Your task to perform on an android device: check battery use Image 0: 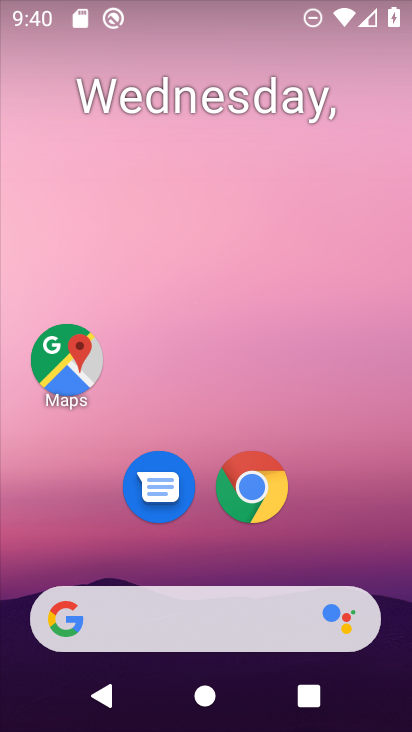
Step 0: drag from (240, 655) to (334, 296)
Your task to perform on an android device: check battery use Image 1: 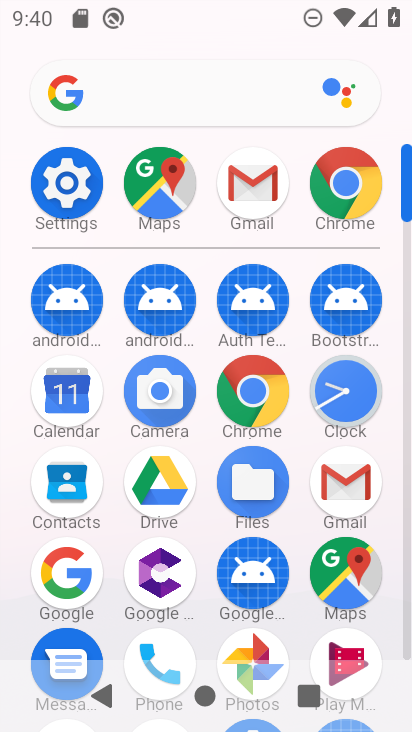
Step 1: click (65, 200)
Your task to perform on an android device: check battery use Image 2: 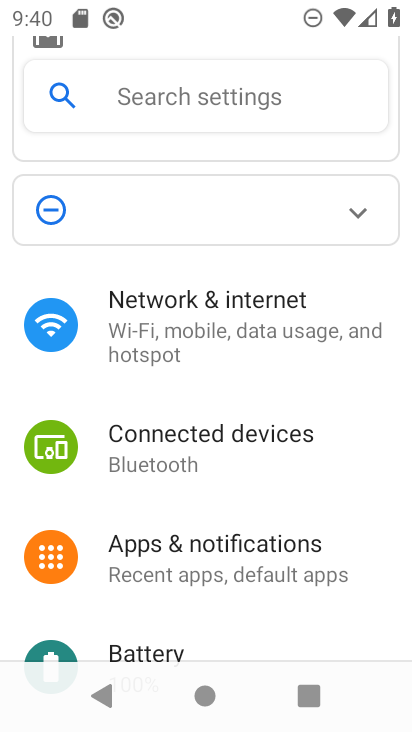
Step 2: click (147, 641)
Your task to perform on an android device: check battery use Image 3: 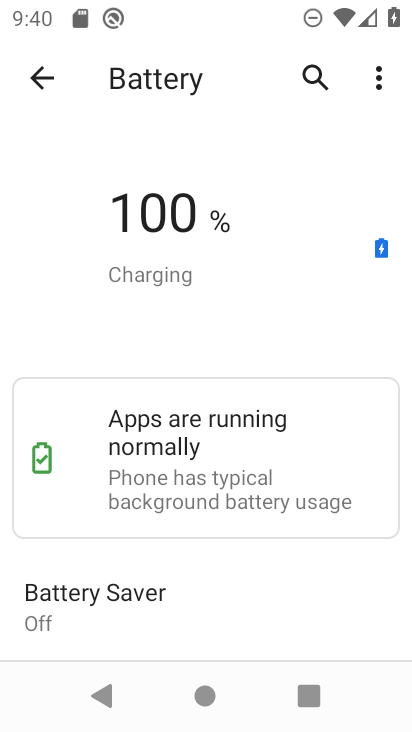
Step 3: click (168, 271)
Your task to perform on an android device: check battery use Image 4: 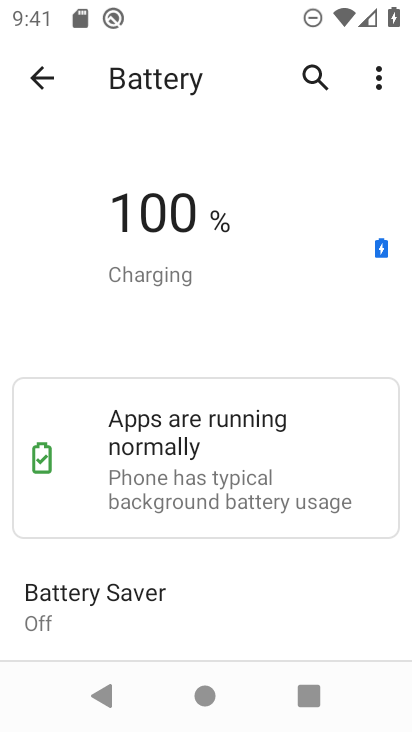
Step 4: task complete